Your task to perform on an android device: install app "Google Drive" Image 0: 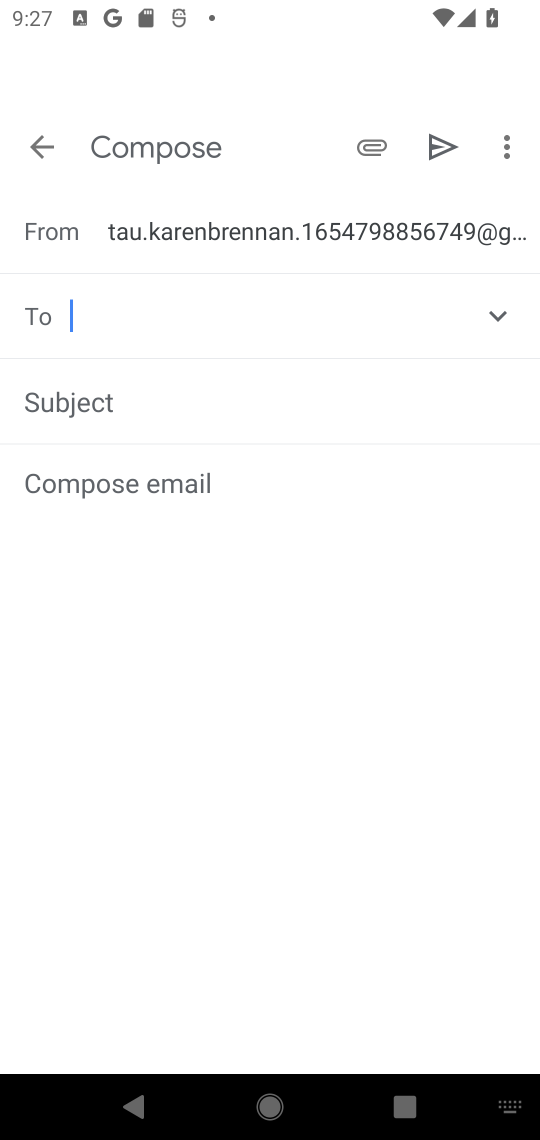
Step 0: press home button
Your task to perform on an android device: install app "Google Drive" Image 1: 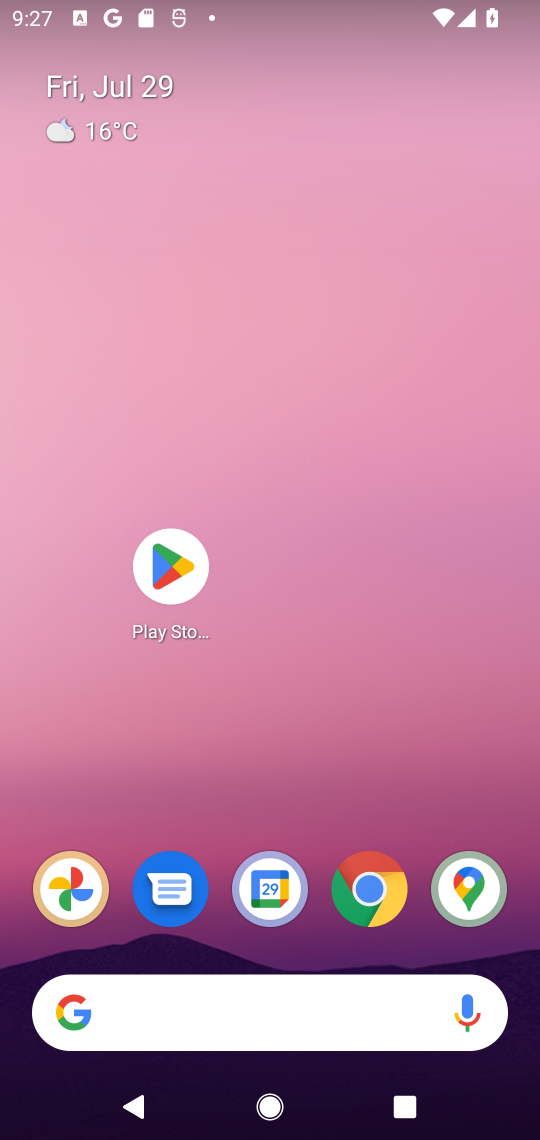
Step 1: click (154, 556)
Your task to perform on an android device: install app "Google Drive" Image 2: 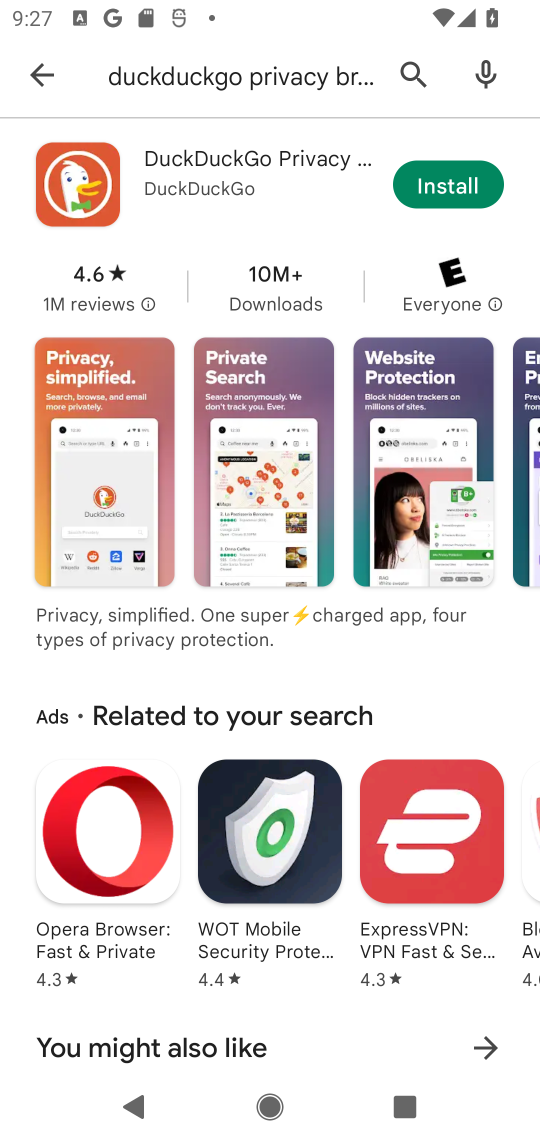
Step 2: click (402, 71)
Your task to perform on an android device: install app "Google Drive" Image 3: 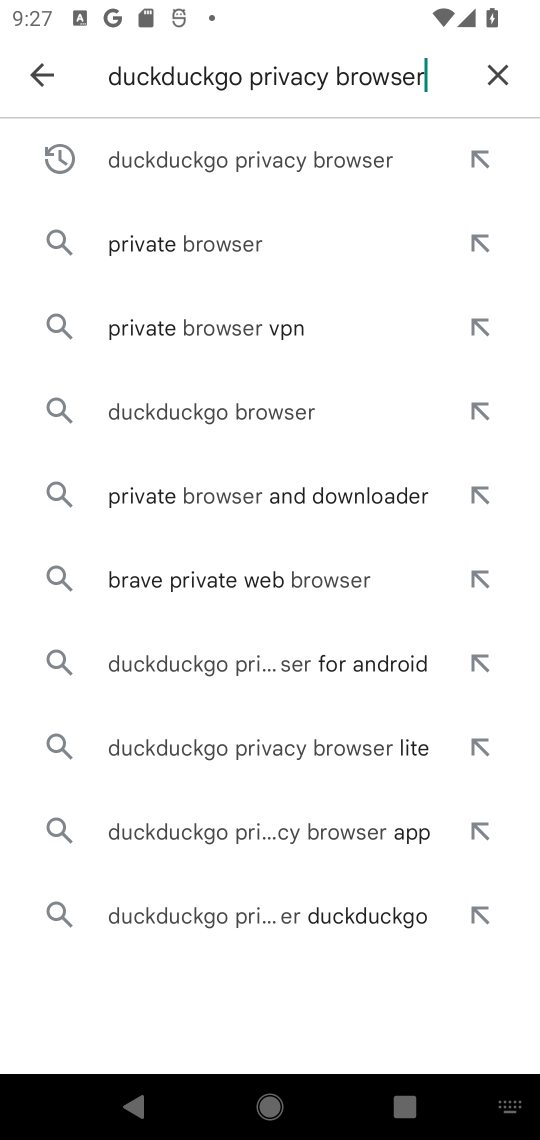
Step 3: click (506, 72)
Your task to perform on an android device: install app "Google Drive" Image 4: 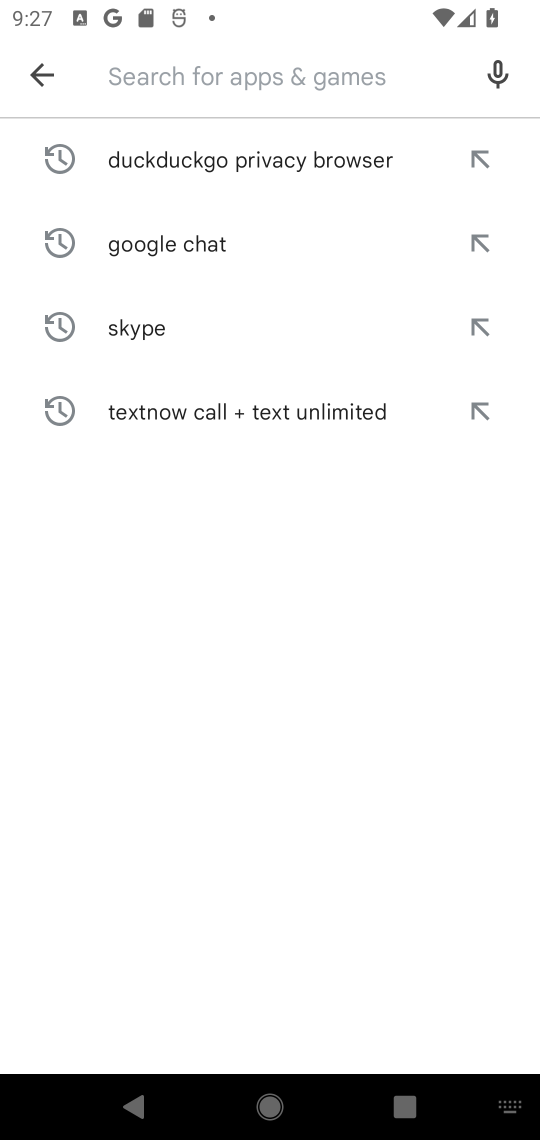
Step 4: type "Google Drive"
Your task to perform on an android device: install app "Google Drive" Image 5: 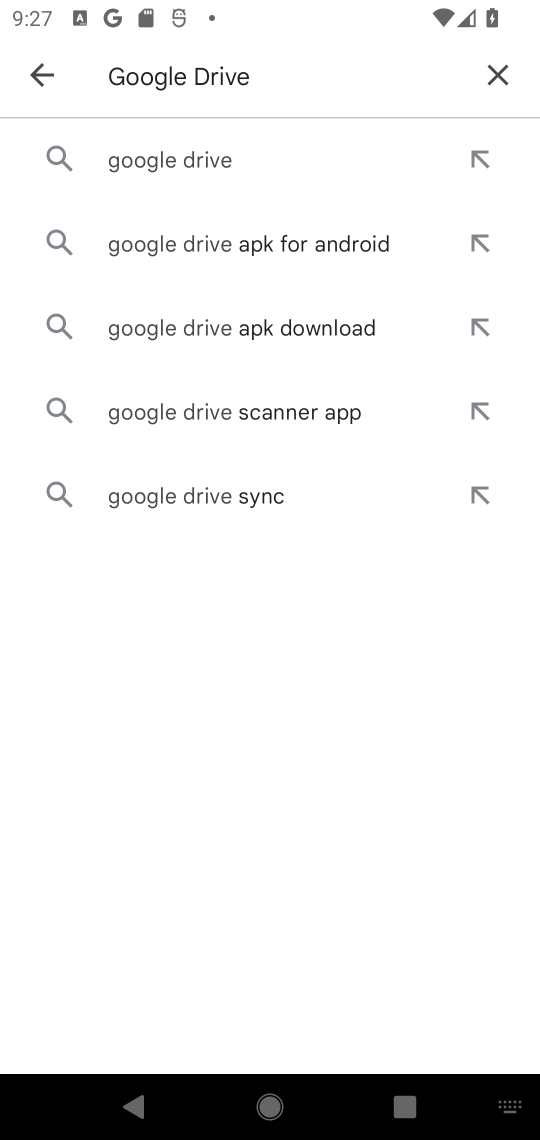
Step 5: click (198, 164)
Your task to perform on an android device: install app "Google Drive" Image 6: 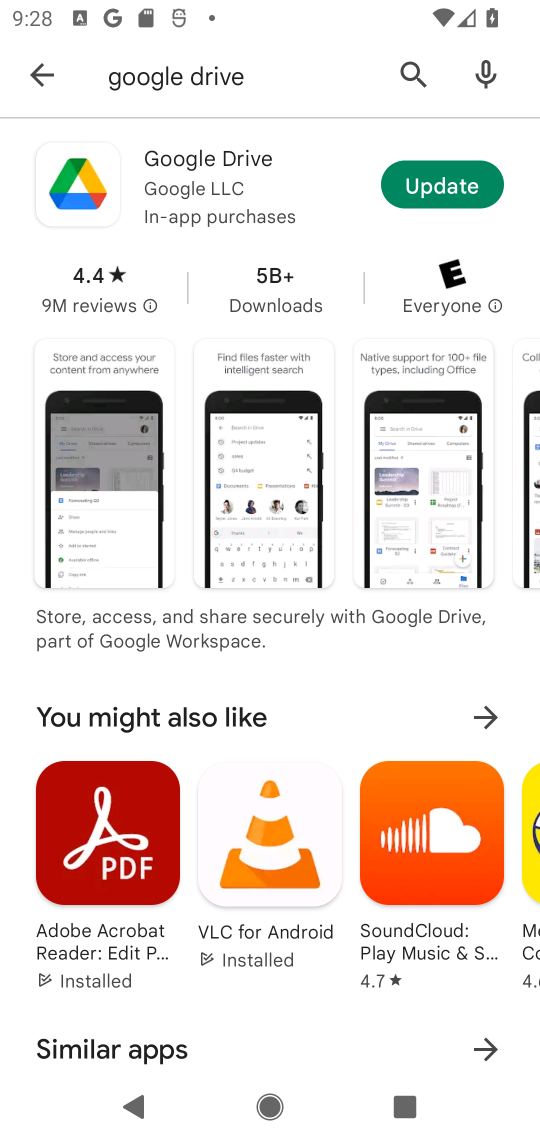
Step 6: task complete